Your task to perform on an android device: Open Amazon Image 0: 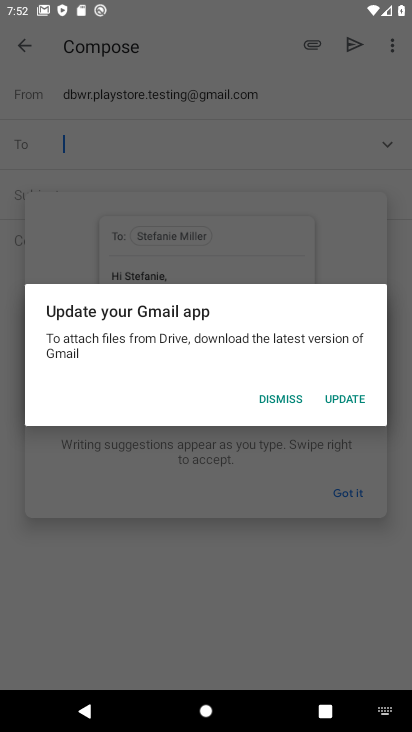
Step 0: press home button
Your task to perform on an android device: Open Amazon Image 1: 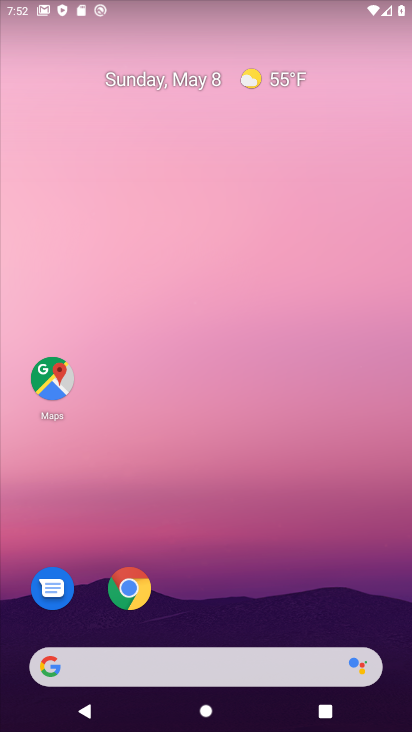
Step 1: drag from (324, 613) to (253, 21)
Your task to perform on an android device: Open Amazon Image 2: 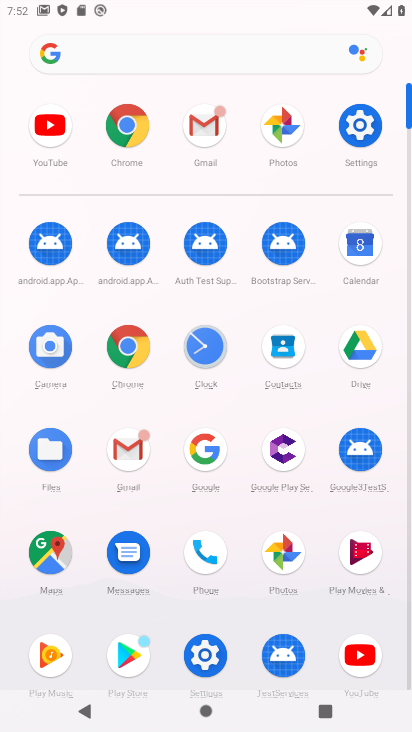
Step 2: click (124, 133)
Your task to perform on an android device: Open Amazon Image 3: 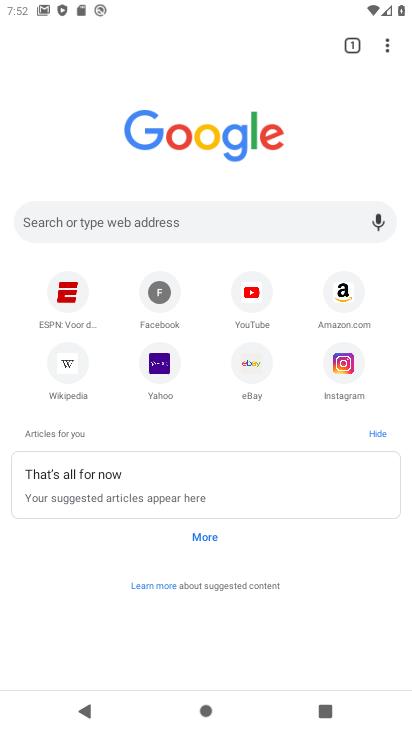
Step 3: click (353, 301)
Your task to perform on an android device: Open Amazon Image 4: 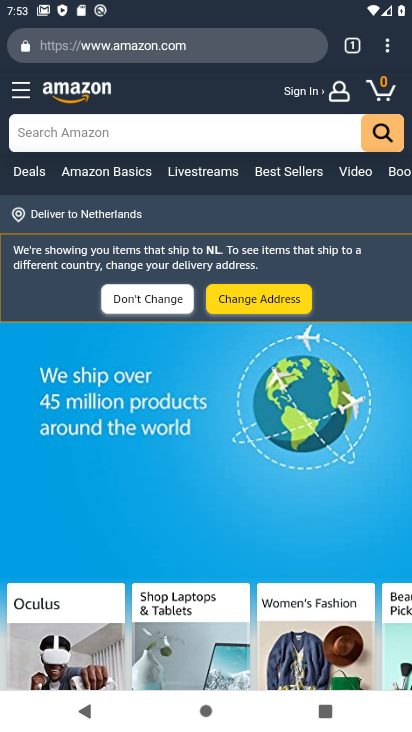
Step 4: task complete